Your task to perform on an android device: open a bookmark in the chrome app Image 0: 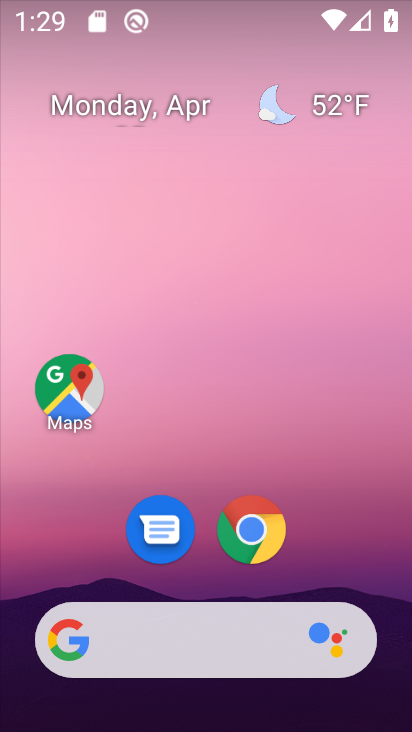
Step 0: drag from (388, 357) to (383, 279)
Your task to perform on an android device: open a bookmark in the chrome app Image 1: 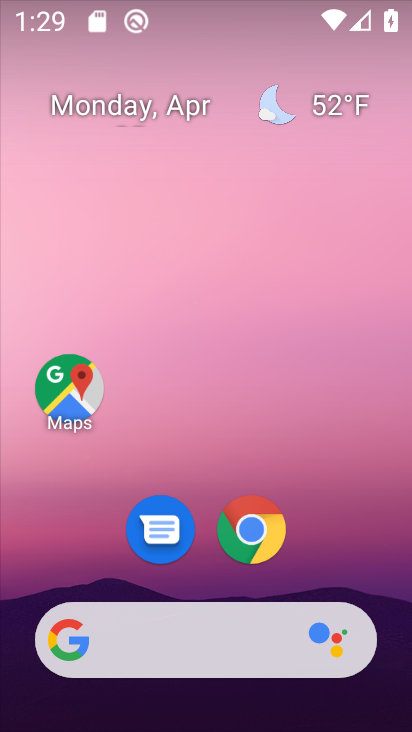
Step 1: drag from (398, 578) to (390, 188)
Your task to perform on an android device: open a bookmark in the chrome app Image 2: 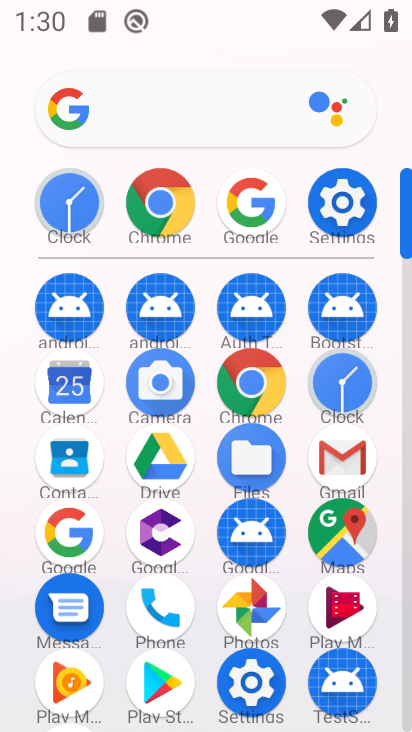
Step 2: click (159, 190)
Your task to perform on an android device: open a bookmark in the chrome app Image 3: 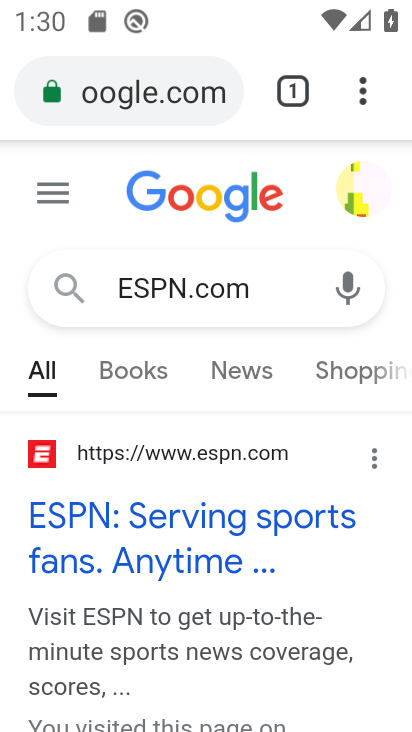
Step 3: click (362, 83)
Your task to perform on an android device: open a bookmark in the chrome app Image 4: 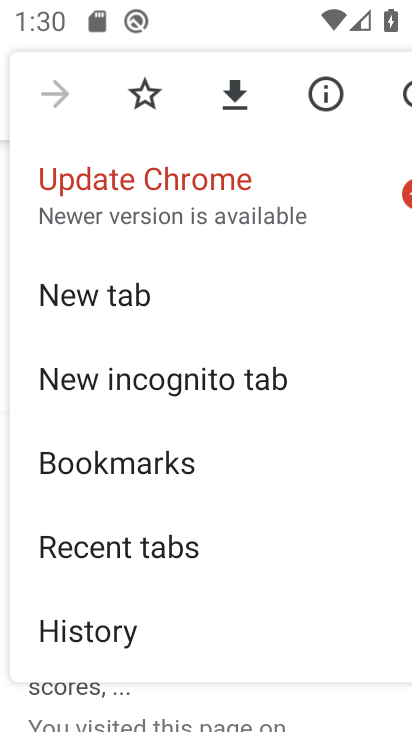
Step 4: click (144, 458)
Your task to perform on an android device: open a bookmark in the chrome app Image 5: 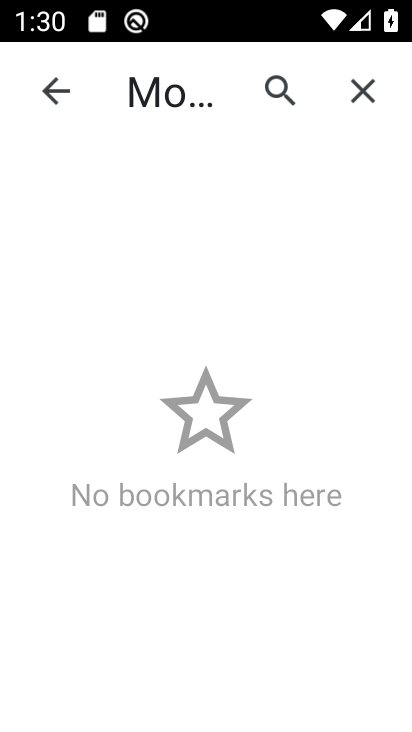
Step 5: task complete